Your task to perform on an android device: Open Chrome and go to settings Image 0: 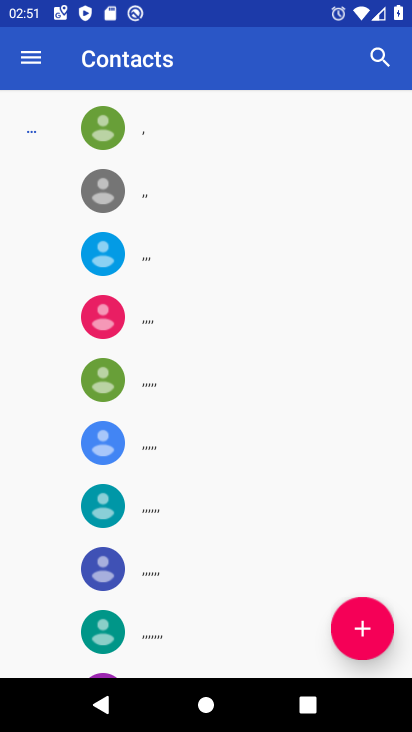
Step 0: press home button
Your task to perform on an android device: Open Chrome and go to settings Image 1: 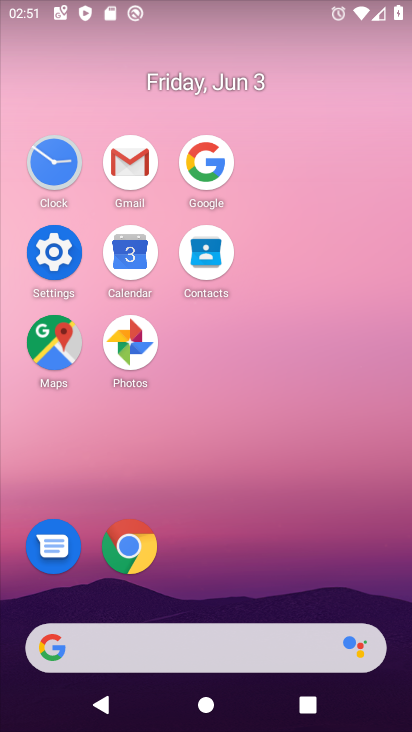
Step 1: click (118, 541)
Your task to perform on an android device: Open Chrome and go to settings Image 2: 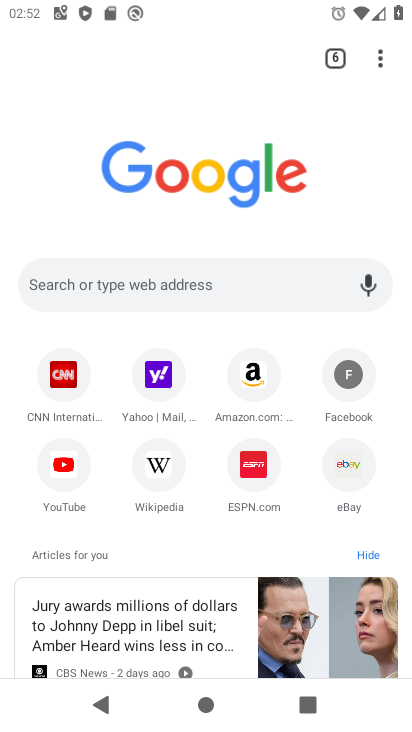
Step 2: click (402, 58)
Your task to perform on an android device: Open Chrome and go to settings Image 3: 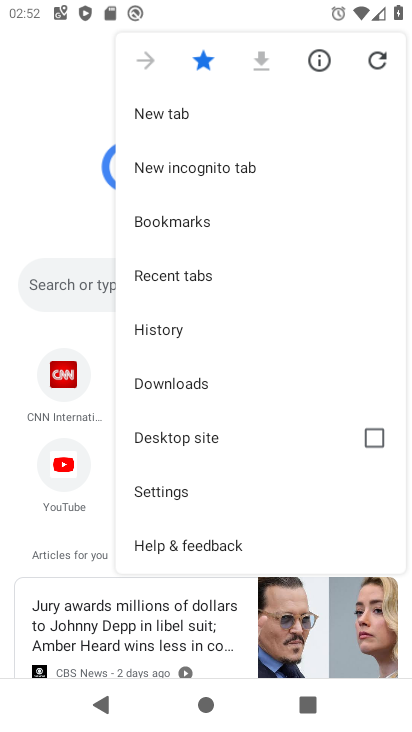
Step 3: click (214, 485)
Your task to perform on an android device: Open Chrome and go to settings Image 4: 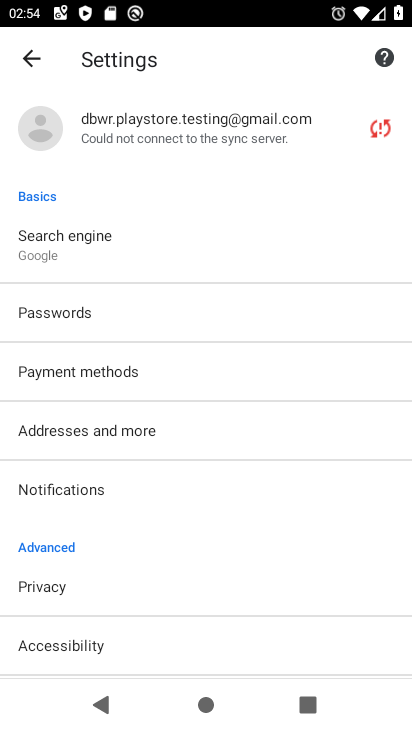
Step 4: task complete